Your task to perform on an android device: See recent photos Image 0: 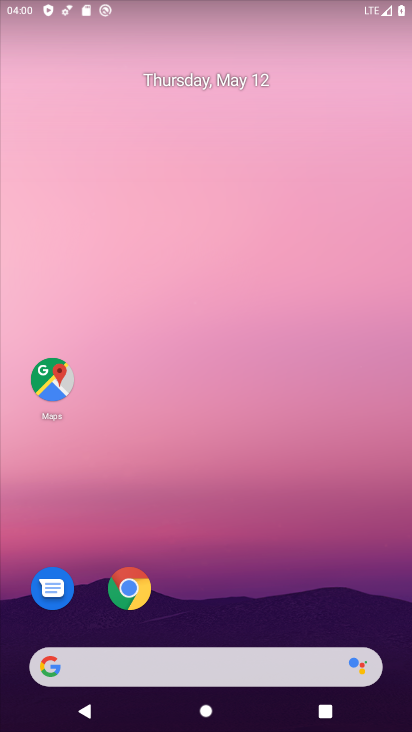
Step 0: drag from (191, 622) to (204, 219)
Your task to perform on an android device: See recent photos Image 1: 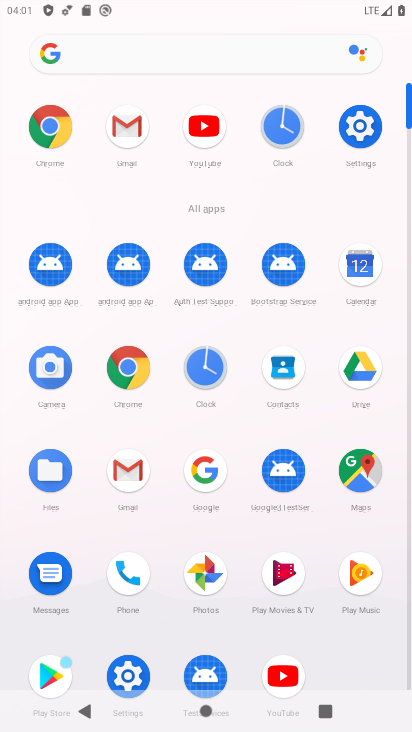
Step 1: click (216, 571)
Your task to perform on an android device: See recent photos Image 2: 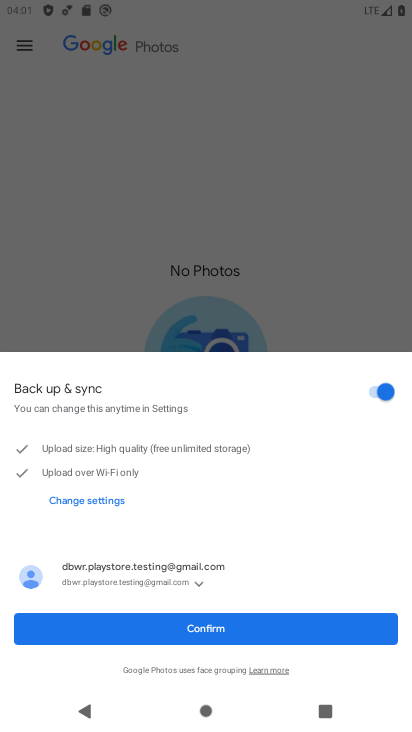
Step 2: click (202, 633)
Your task to perform on an android device: See recent photos Image 3: 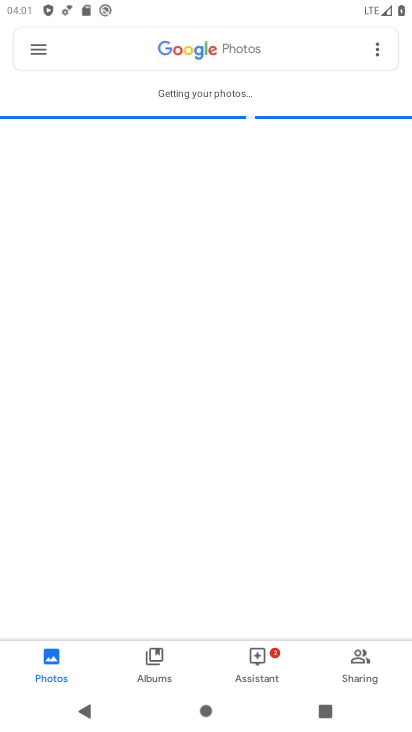
Step 3: click (156, 658)
Your task to perform on an android device: See recent photos Image 4: 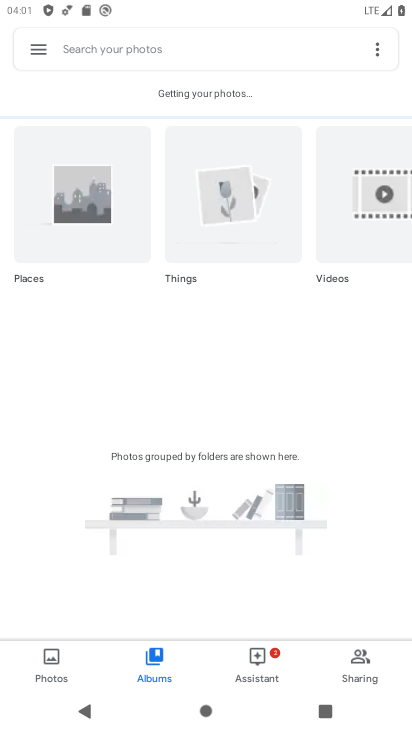
Step 4: drag from (239, 596) to (262, 321)
Your task to perform on an android device: See recent photos Image 5: 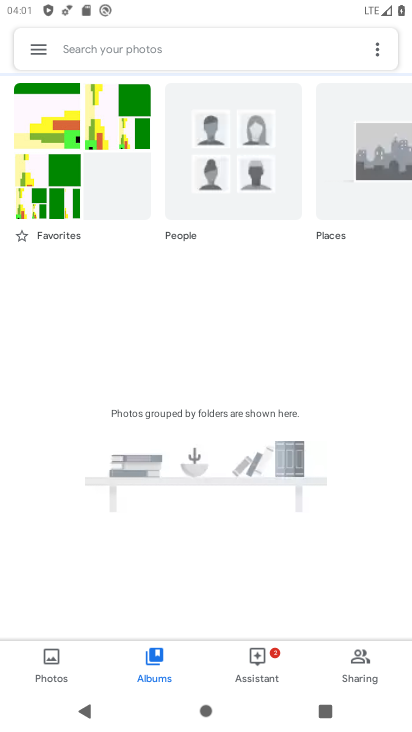
Step 5: click (65, 667)
Your task to perform on an android device: See recent photos Image 6: 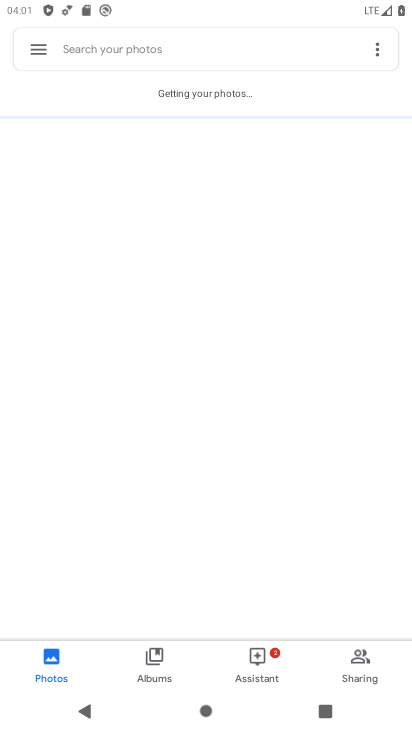
Step 6: click (149, 665)
Your task to perform on an android device: See recent photos Image 7: 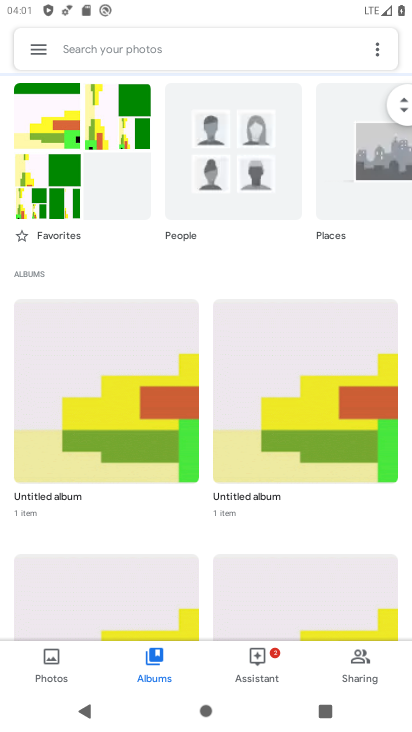
Step 7: click (74, 151)
Your task to perform on an android device: See recent photos Image 8: 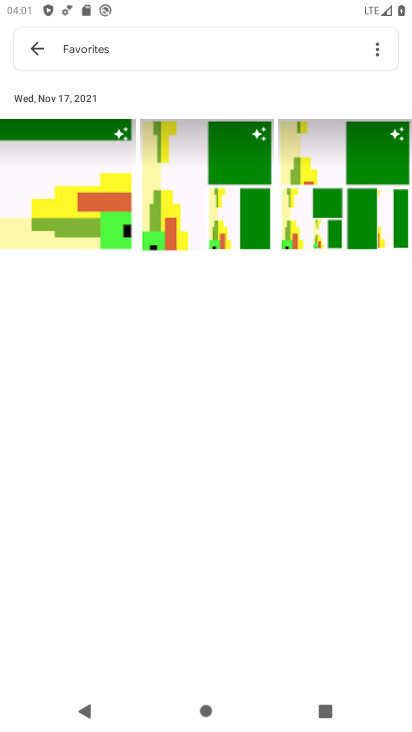
Step 8: click (83, 182)
Your task to perform on an android device: See recent photos Image 9: 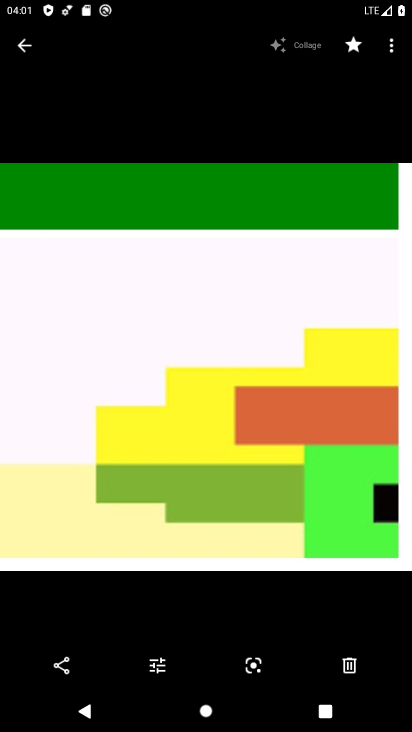
Step 9: task complete